Your task to perform on an android device: turn vacation reply on in the gmail app Image 0: 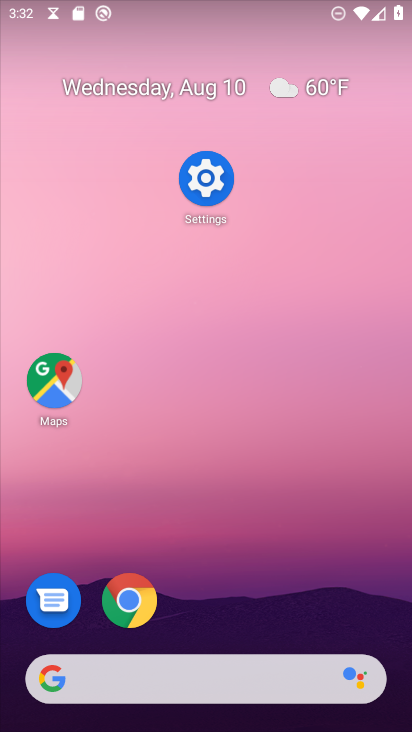
Step 0: drag from (261, 603) to (190, 0)
Your task to perform on an android device: turn vacation reply on in the gmail app Image 1: 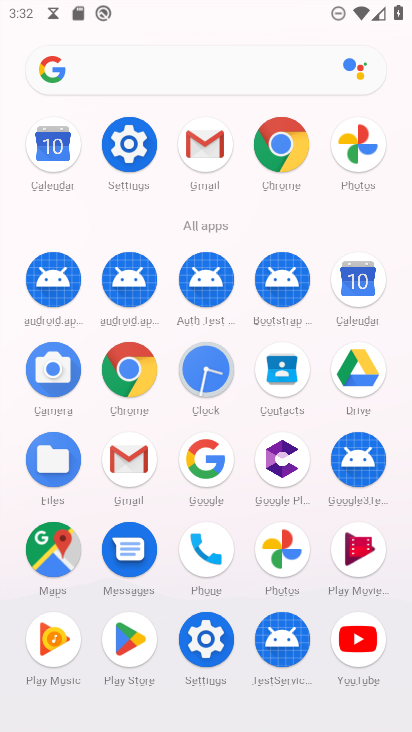
Step 1: click (196, 156)
Your task to perform on an android device: turn vacation reply on in the gmail app Image 2: 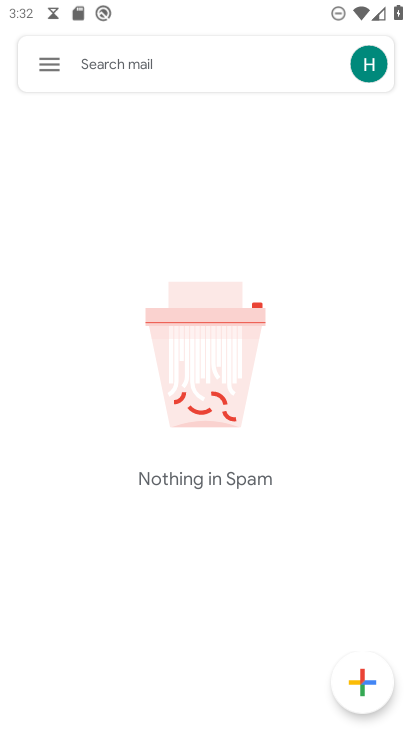
Step 2: click (51, 63)
Your task to perform on an android device: turn vacation reply on in the gmail app Image 3: 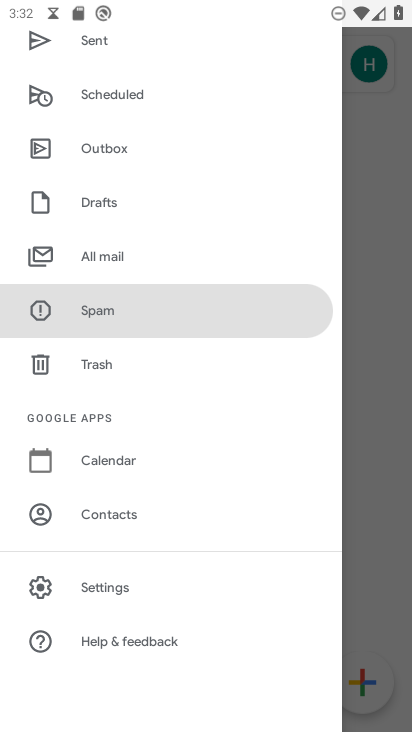
Step 3: click (106, 581)
Your task to perform on an android device: turn vacation reply on in the gmail app Image 4: 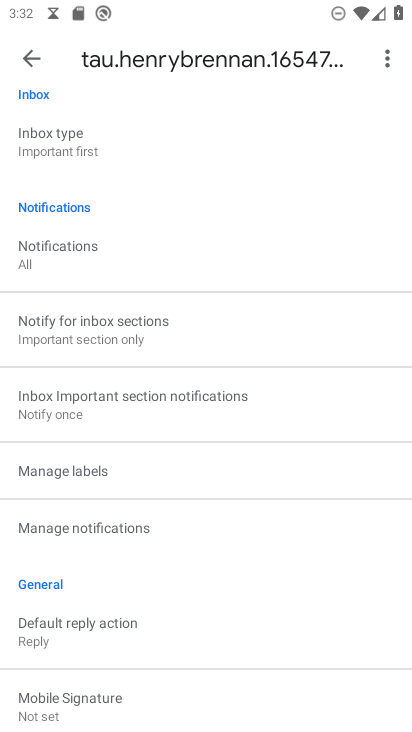
Step 4: drag from (166, 255) to (350, 8)
Your task to perform on an android device: turn vacation reply on in the gmail app Image 5: 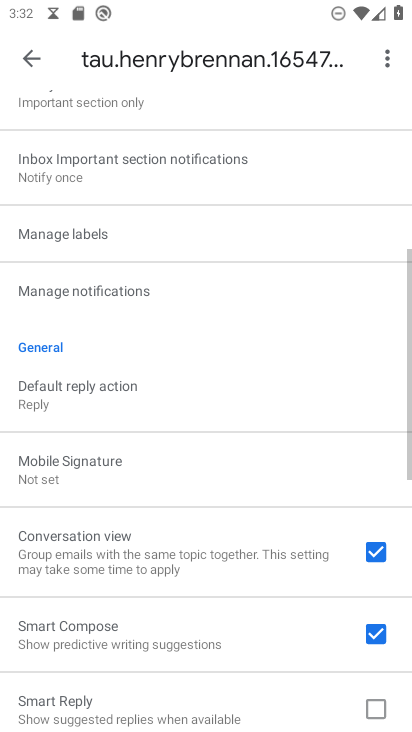
Step 5: drag from (274, 633) to (238, 197)
Your task to perform on an android device: turn vacation reply on in the gmail app Image 6: 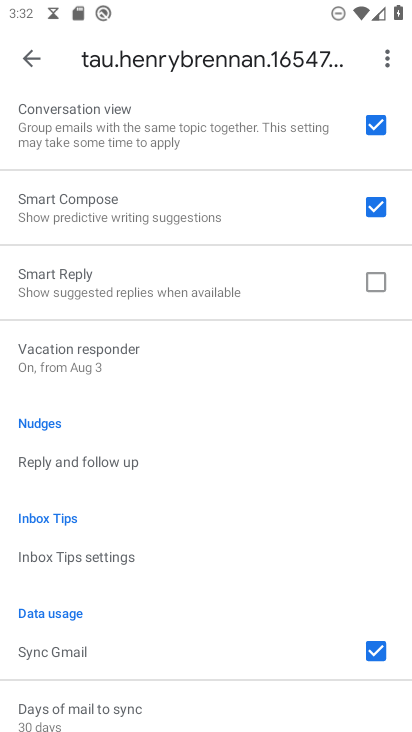
Step 6: click (69, 346)
Your task to perform on an android device: turn vacation reply on in the gmail app Image 7: 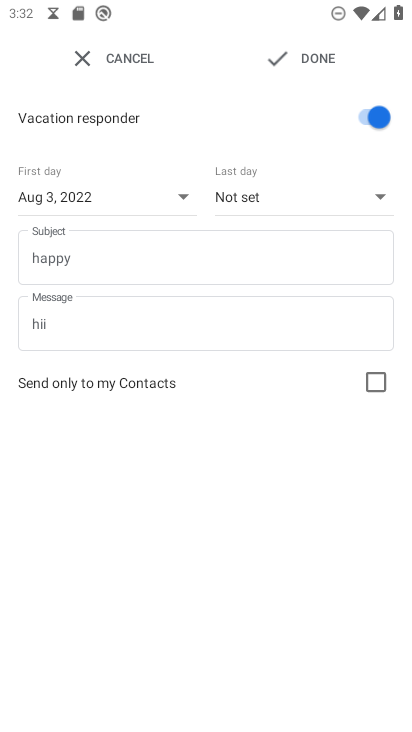
Step 7: task complete